Your task to perform on an android device: Go to Wikipedia Image 0: 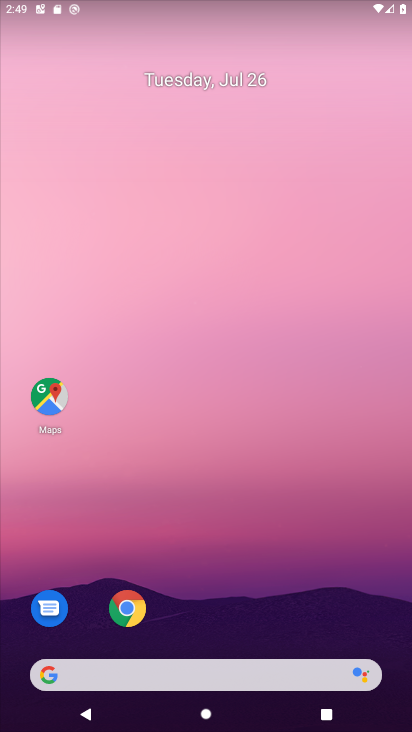
Step 0: click (141, 613)
Your task to perform on an android device: Go to Wikipedia Image 1: 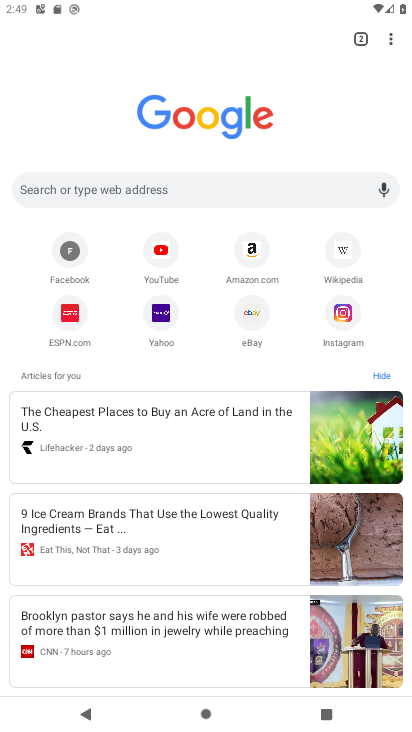
Step 1: click (352, 254)
Your task to perform on an android device: Go to Wikipedia Image 2: 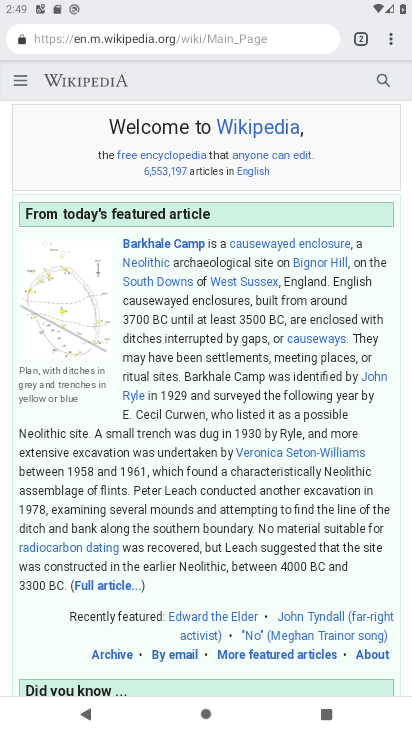
Step 2: task complete